Your task to perform on an android device: Open calendar and show me the second week of next month Image 0: 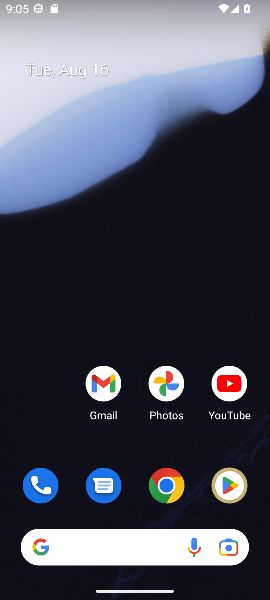
Step 0: drag from (122, 450) to (92, 126)
Your task to perform on an android device: Open calendar and show me the second week of next month Image 1: 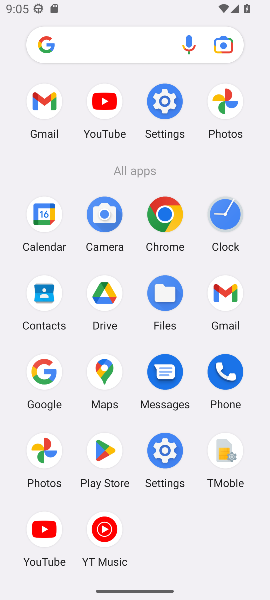
Step 1: click (47, 215)
Your task to perform on an android device: Open calendar and show me the second week of next month Image 2: 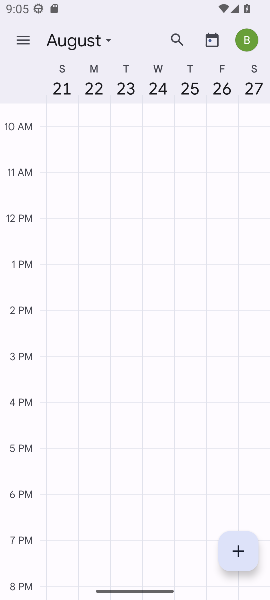
Step 2: click (69, 39)
Your task to perform on an android device: Open calendar and show me the second week of next month Image 3: 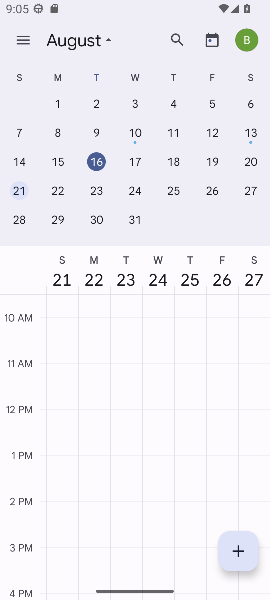
Step 3: drag from (224, 182) to (74, 177)
Your task to perform on an android device: Open calendar and show me the second week of next month Image 4: 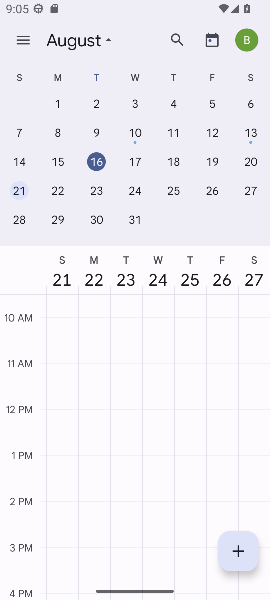
Step 4: drag from (251, 190) to (32, 224)
Your task to perform on an android device: Open calendar and show me the second week of next month Image 5: 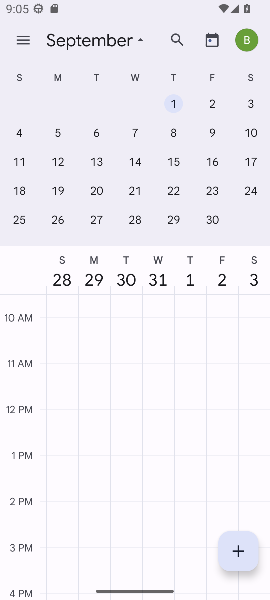
Step 5: click (134, 154)
Your task to perform on an android device: Open calendar and show me the second week of next month Image 6: 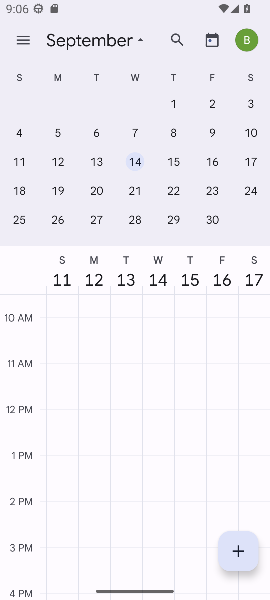
Step 6: click (134, 162)
Your task to perform on an android device: Open calendar and show me the second week of next month Image 7: 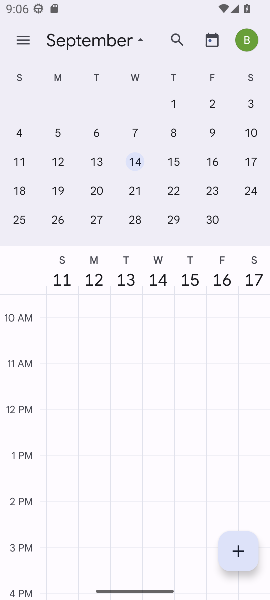
Step 7: click (134, 164)
Your task to perform on an android device: Open calendar and show me the second week of next month Image 8: 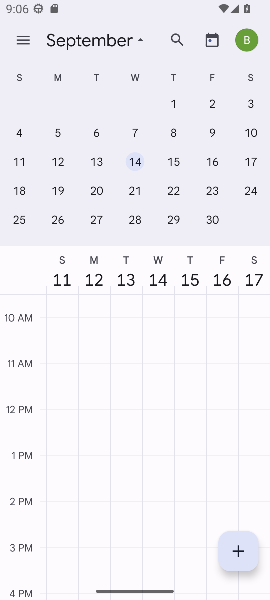
Step 8: click (177, 157)
Your task to perform on an android device: Open calendar and show me the second week of next month Image 9: 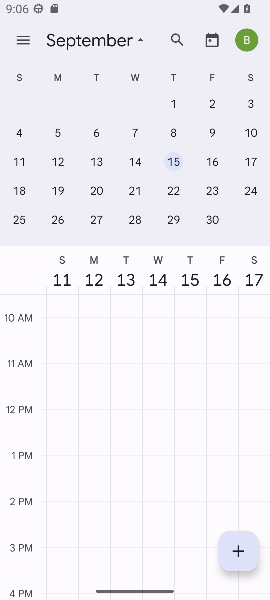
Step 9: task complete